Your task to perform on an android device: Go to network settings Image 0: 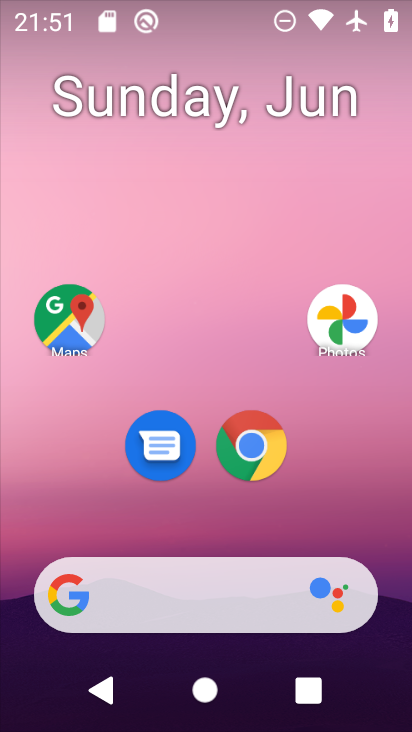
Step 0: press home button
Your task to perform on an android device: Go to network settings Image 1: 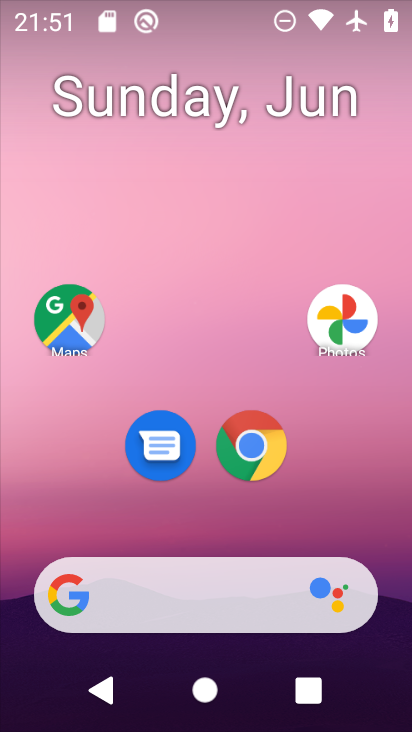
Step 1: drag from (329, 484) to (274, 23)
Your task to perform on an android device: Go to network settings Image 2: 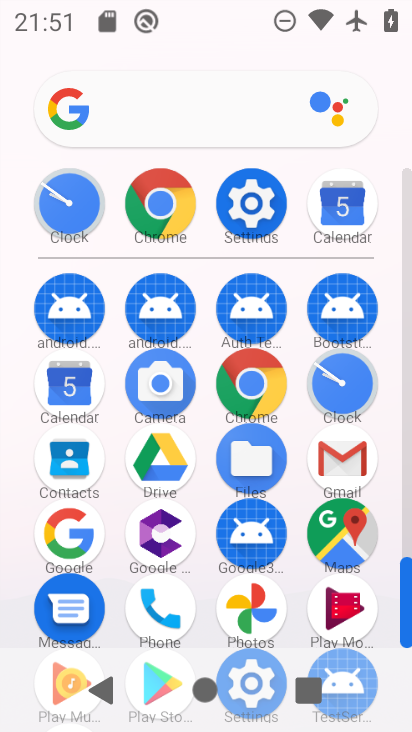
Step 2: click (247, 207)
Your task to perform on an android device: Go to network settings Image 3: 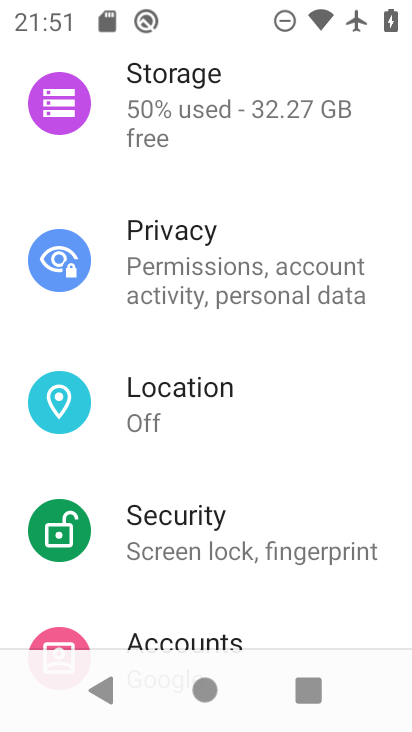
Step 3: drag from (272, 193) to (278, 617)
Your task to perform on an android device: Go to network settings Image 4: 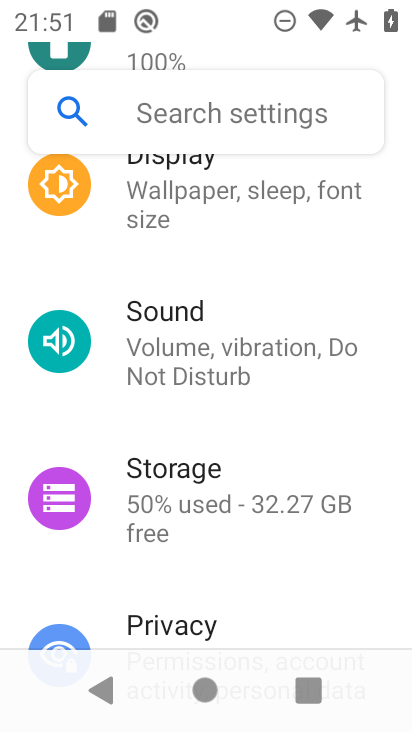
Step 4: drag from (284, 292) to (327, 719)
Your task to perform on an android device: Go to network settings Image 5: 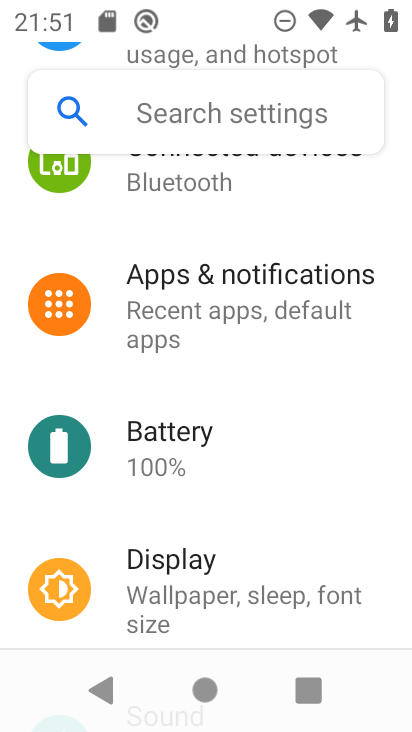
Step 5: drag from (272, 229) to (273, 566)
Your task to perform on an android device: Go to network settings Image 6: 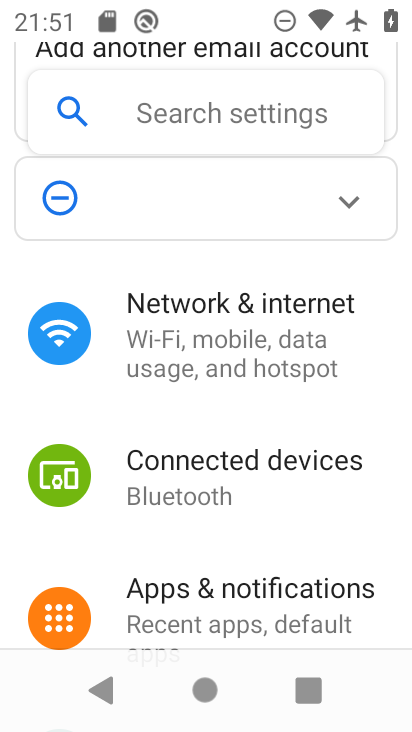
Step 6: click (203, 309)
Your task to perform on an android device: Go to network settings Image 7: 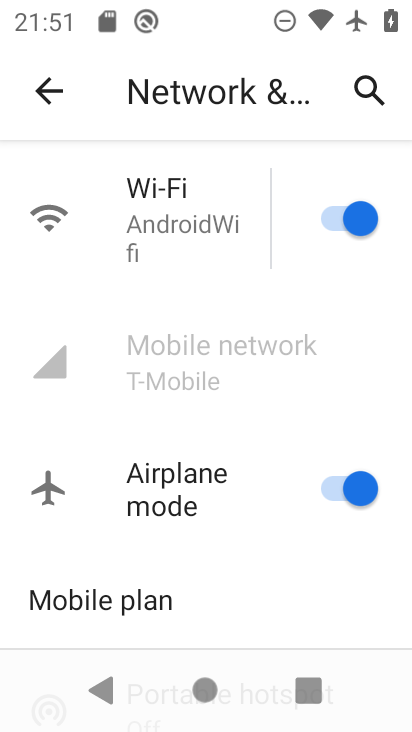
Step 7: task complete